Your task to perform on an android device: What's the weather going to be this weekend? Image 0: 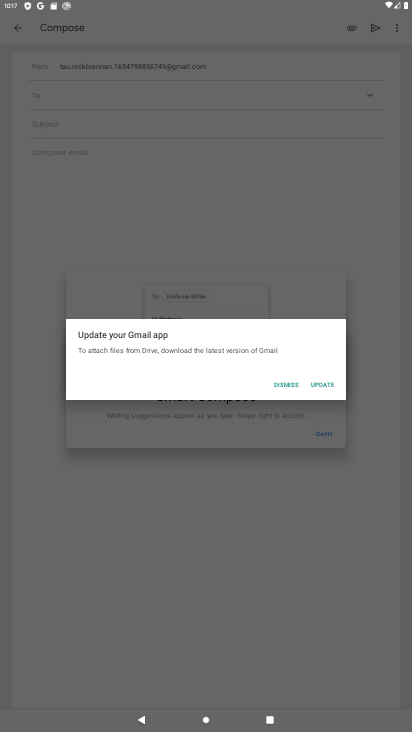
Step 0: press home button
Your task to perform on an android device: What's the weather going to be this weekend? Image 1: 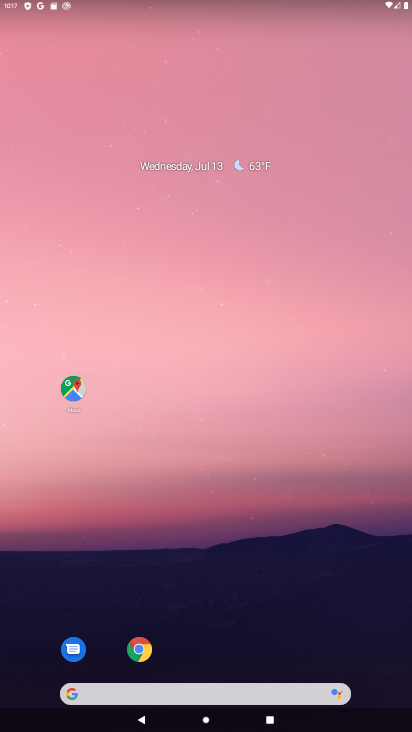
Step 1: drag from (207, 629) to (249, 270)
Your task to perform on an android device: What's the weather going to be this weekend? Image 2: 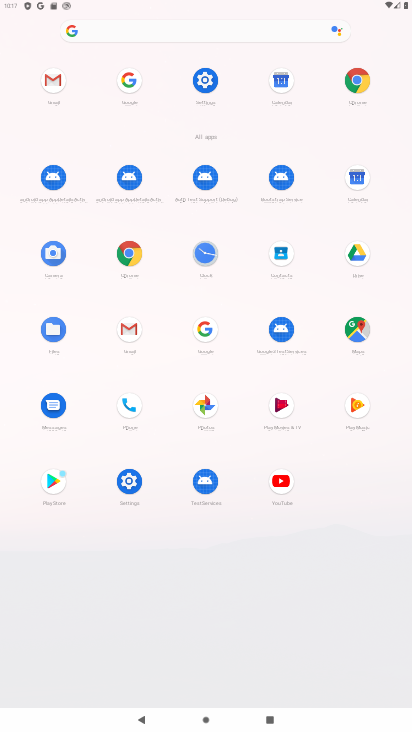
Step 2: click (118, 250)
Your task to perform on an android device: What's the weather going to be this weekend? Image 3: 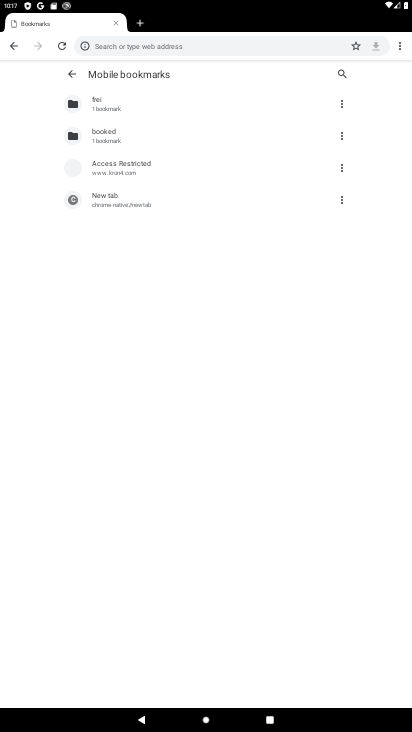
Step 3: click (139, 29)
Your task to perform on an android device: What's the weather going to be this weekend? Image 4: 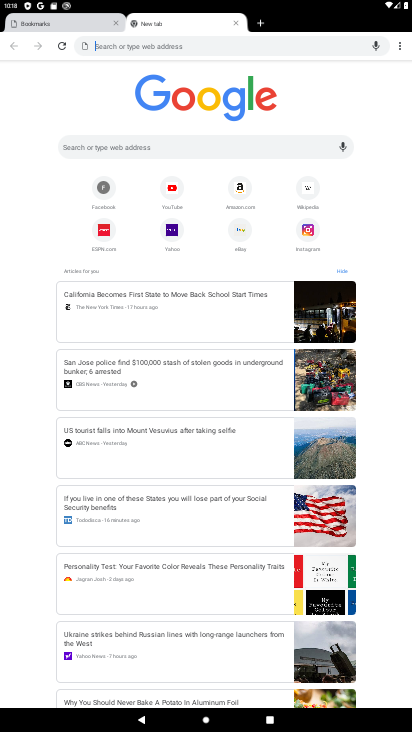
Step 4: click (235, 136)
Your task to perform on an android device: What's the weather going to be this weekend? Image 5: 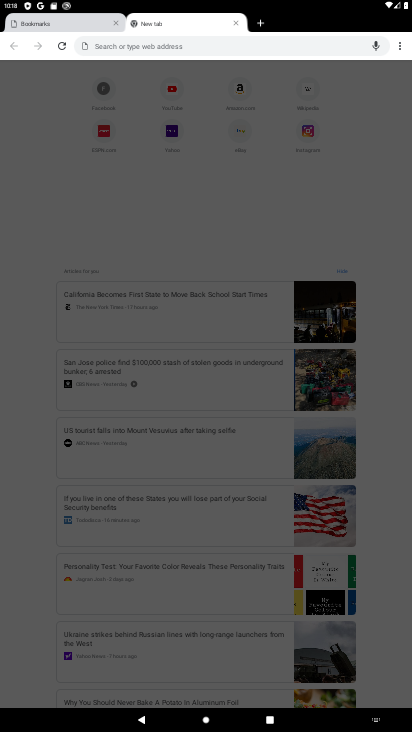
Step 5: type "What's the weather going to be this weekend "
Your task to perform on an android device: What's the weather going to be this weekend? Image 6: 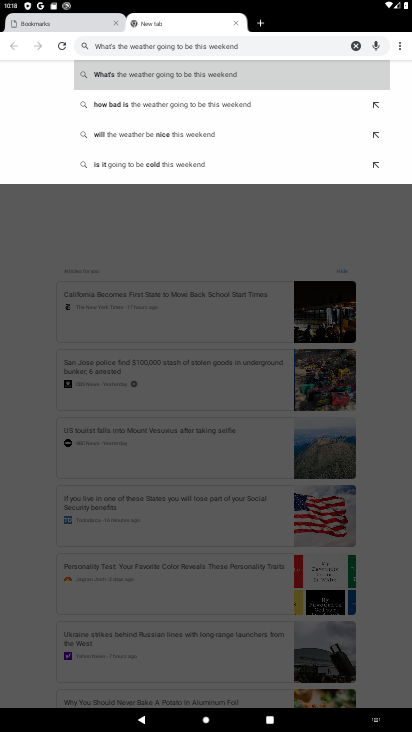
Step 6: click (290, 64)
Your task to perform on an android device: What's the weather going to be this weekend? Image 7: 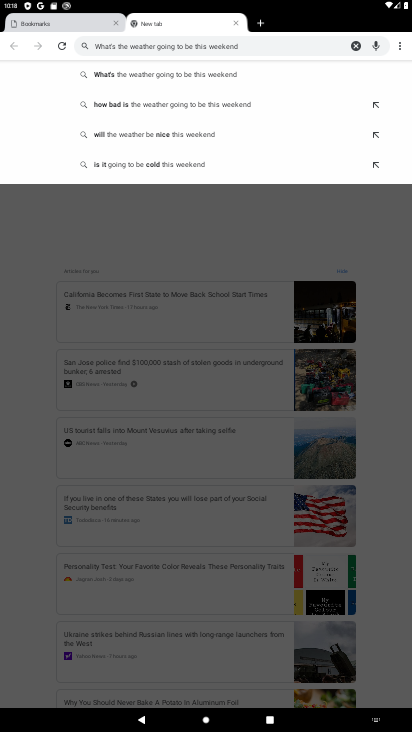
Step 7: click (177, 76)
Your task to perform on an android device: What's the weather going to be this weekend? Image 8: 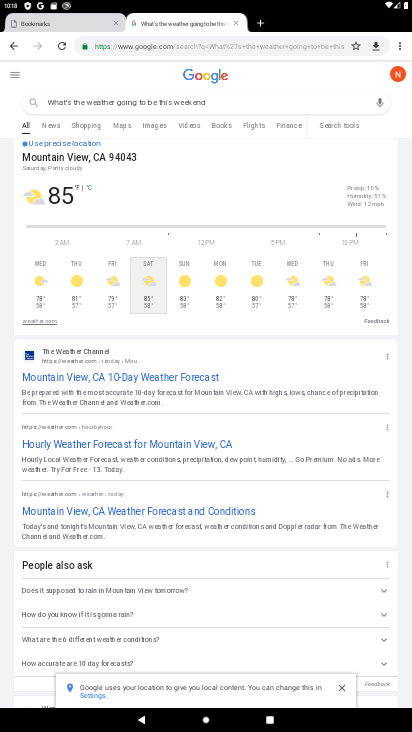
Step 8: task complete